Your task to perform on an android device: Search for pizza restaurants on Maps Image 0: 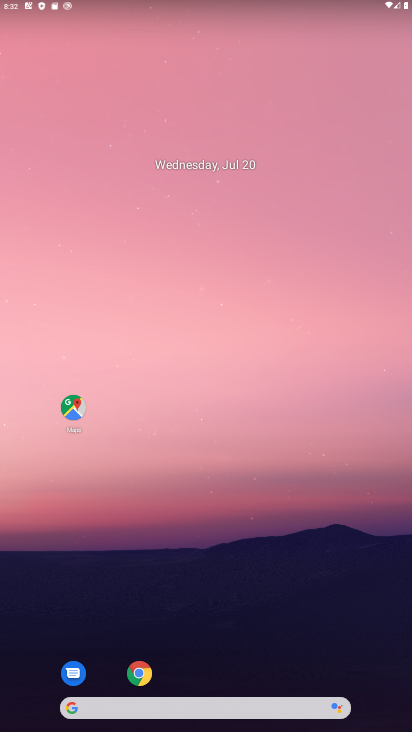
Step 0: drag from (173, 679) to (261, 119)
Your task to perform on an android device: Search for pizza restaurants on Maps Image 1: 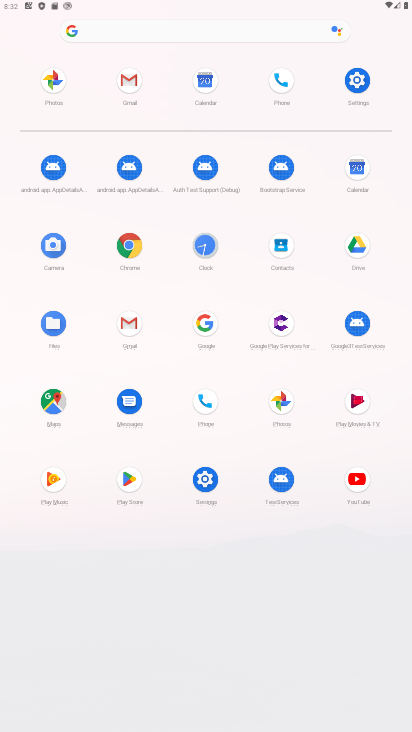
Step 1: click (46, 394)
Your task to perform on an android device: Search for pizza restaurants on Maps Image 2: 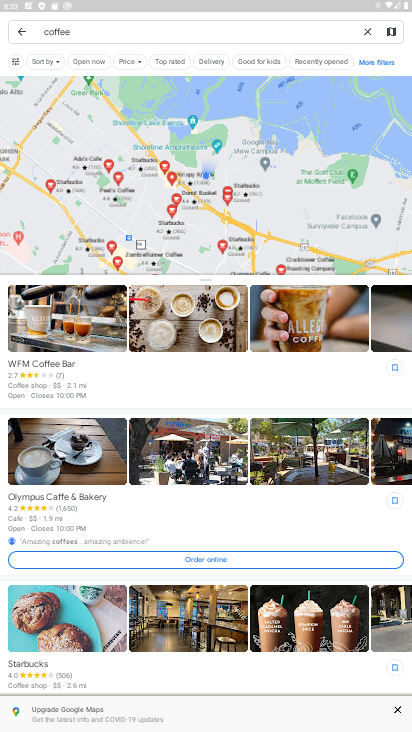
Step 2: click (366, 30)
Your task to perform on an android device: Search for pizza restaurants on Maps Image 3: 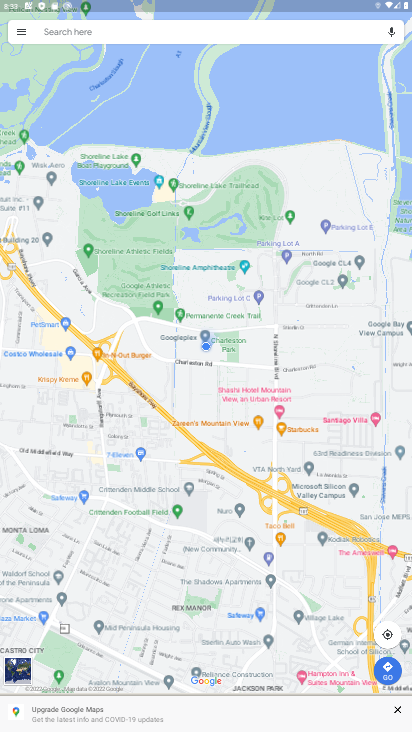
Step 3: click (116, 27)
Your task to perform on an android device: Search for pizza restaurants on Maps Image 4: 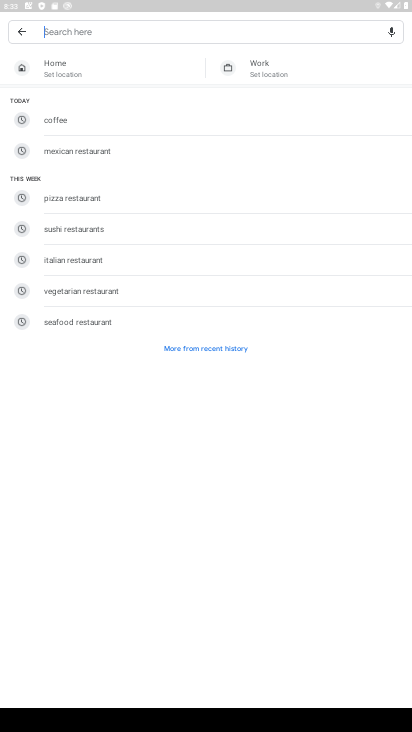
Step 4: click (60, 197)
Your task to perform on an android device: Search for pizza restaurants on Maps Image 5: 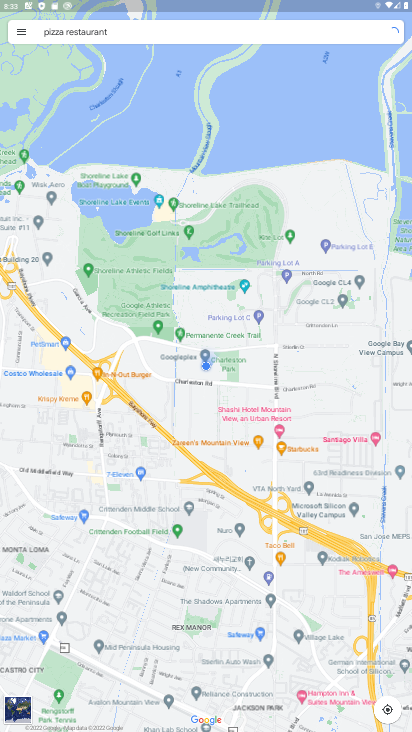
Step 5: task complete